Your task to perform on an android device: Go to notification settings Image 0: 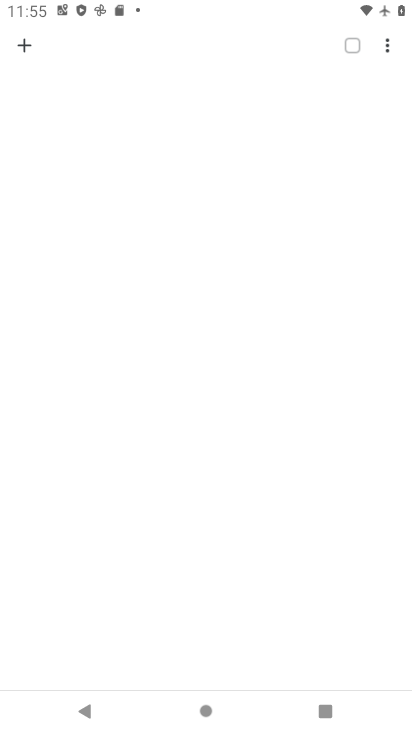
Step 0: press home button
Your task to perform on an android device: Go to notification settings Image 1: 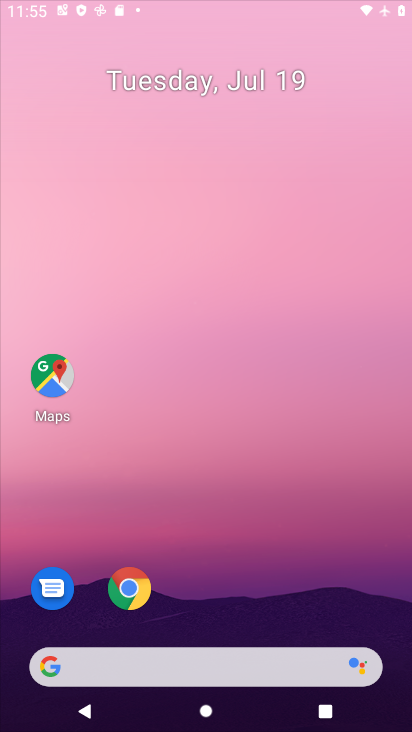
Step 1: drag from (381, 672) to (250, 32)
Your task to perform on an android device: Go to notification settings Image 2: 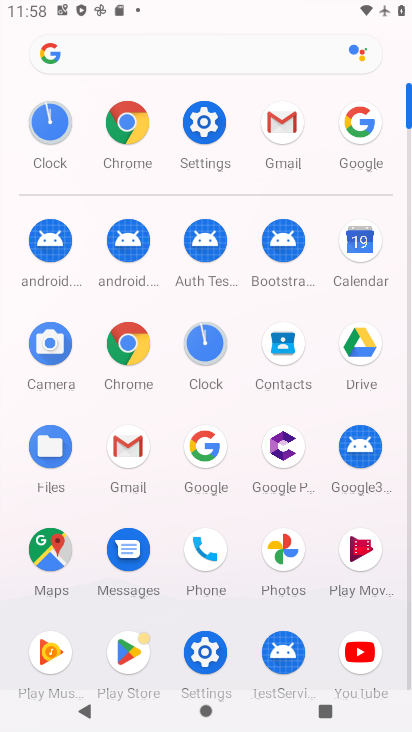
Step 2: click (221, 648)
Your task to perform on an android device: Go to notification settings Image 3: 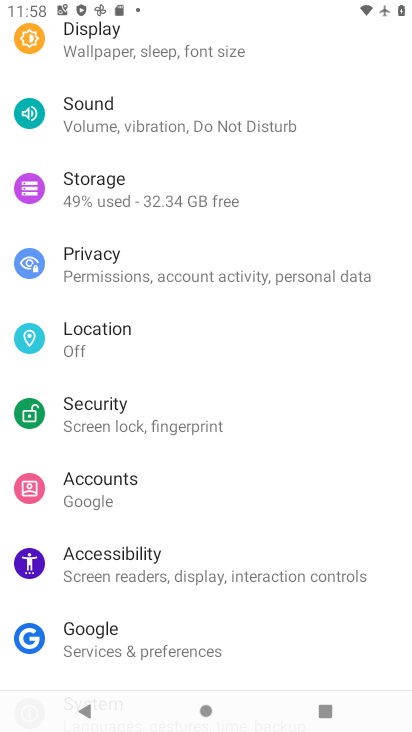
Step 3: drag from (167, 143) to (209, 692)
Your task to perform on an android device: Go to notification settings Image 4: 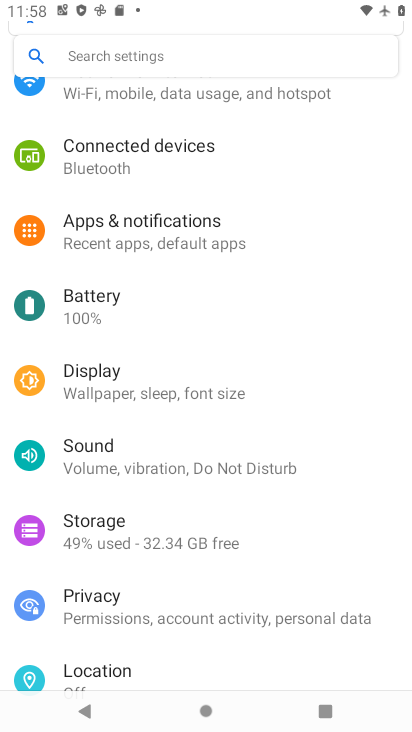
Step 4: click (191, 249)
Your task to perform on an android device: Go to notification settings Image 5: 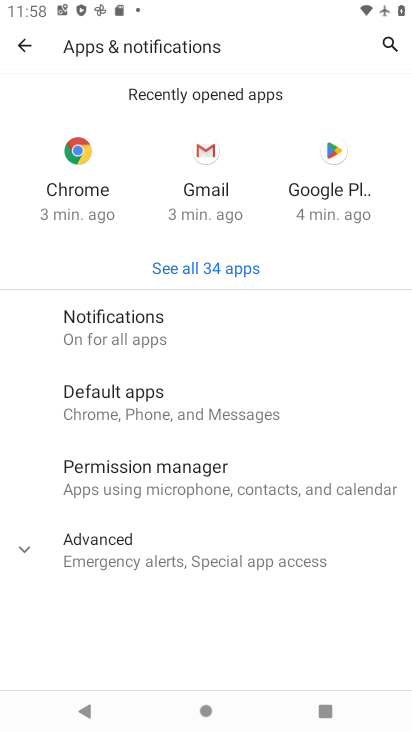
Step 5: task complete